Your task to perform on an android device: turn on priority inbox in the gmail app Image 0: 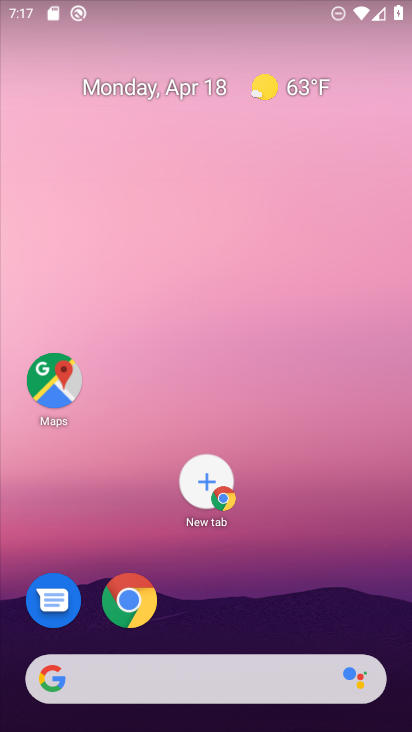
Step 0: drag from (282, 622) to (300, 55)
Your task to perform on an android device: turn on priority inbox in the gmail app Image 1: 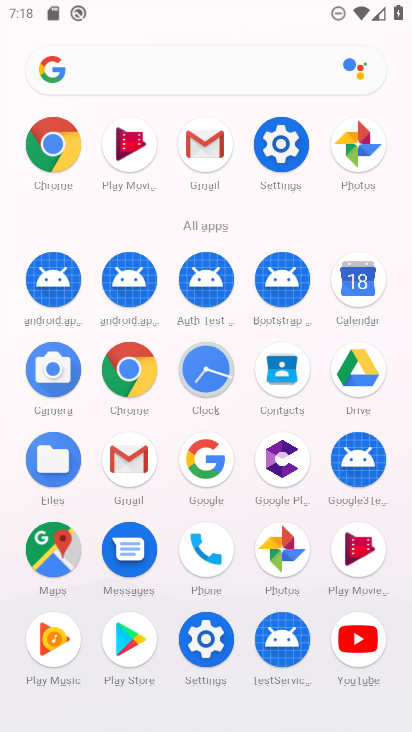
Step 1: click (124, 464)
Your task to perform on an android device: turn on priority inbox in the gmail app Image 2: 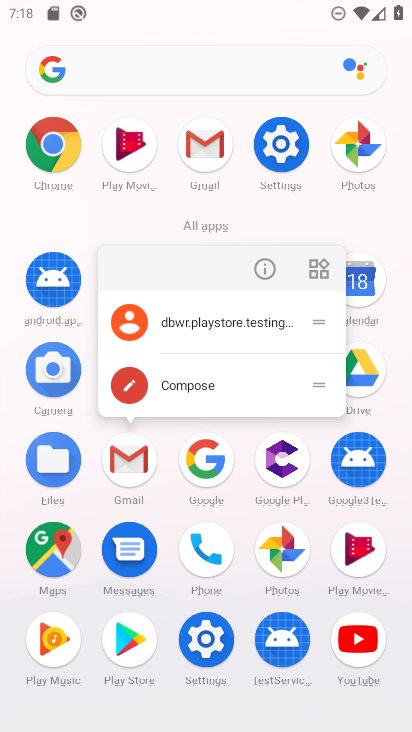
Step 2: click (124, 464)
Your task to perform on an android device: turn on priority inbox in the gmail app Image 3: 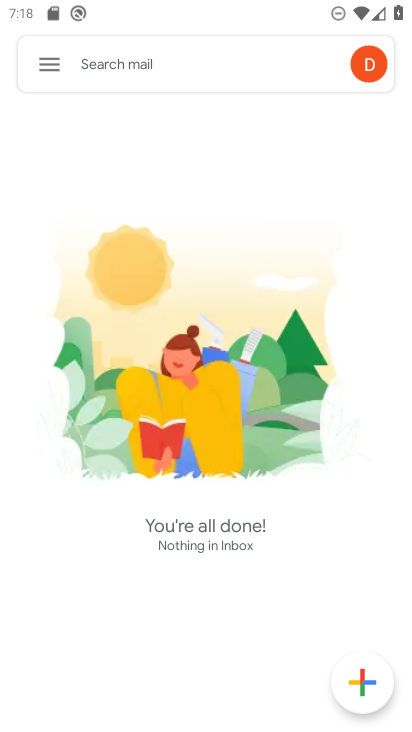
Step 3: click (51, 58)
Your task to perform on an android device: turn on priority inbox in the gmail app Image 4: 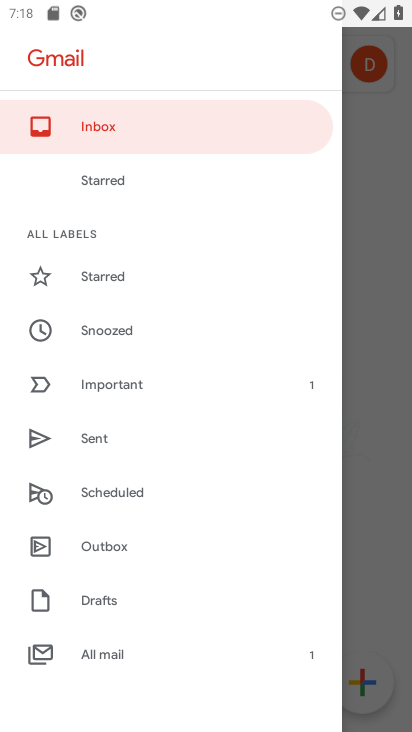
Step 4: drag from (185, 363) to (185, 243)
Your task to perform on an android device: turn on priority inbox in the gmail app Image 5: 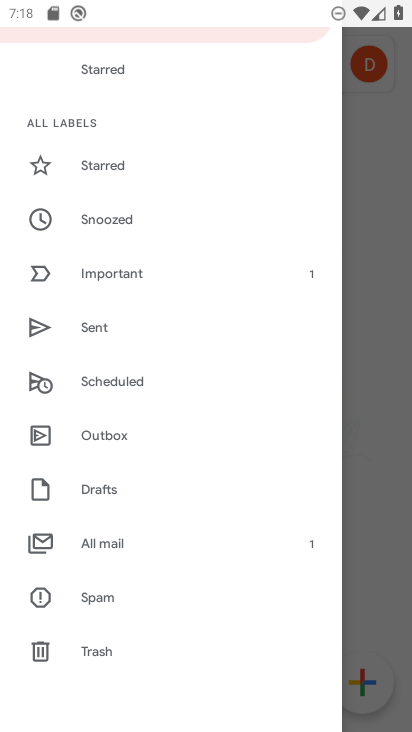
Step 5: drag from (167, 619) to (185, 111)
Your task to perform on an android device: turn on priority inbox in the gmail app Image 6: 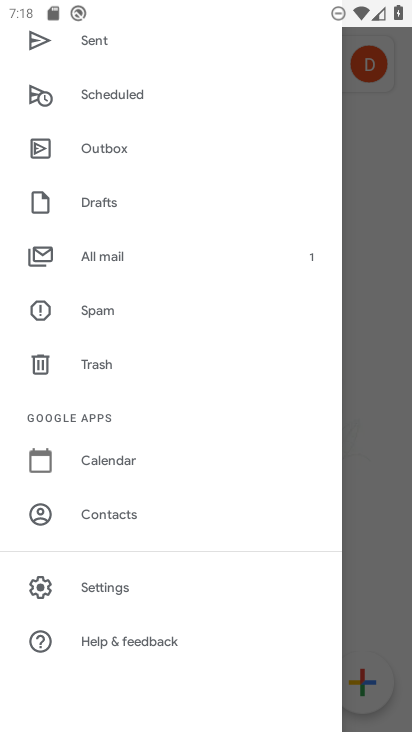
Step 6: click (95, 587)
Your task to perform on an android device: turn on priority inbox in the gmail app Image 7: 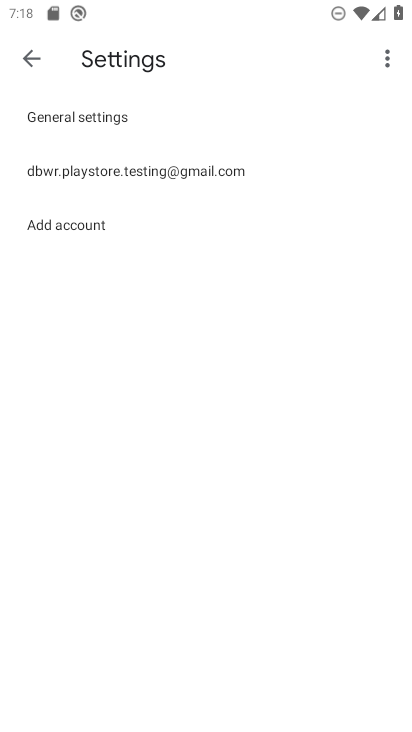
Step 7: click (81, 115)
Your task to perform on an android device: turn on priority inbox in the gmail app Image 8: 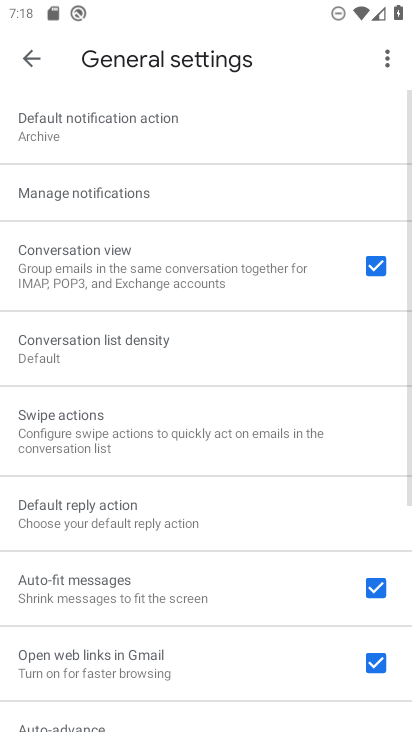
Step 8: drag from (135, 156) to (132, 485)
Your task to perform on an android device: turn on priority inbox in the gmail app Image 9: 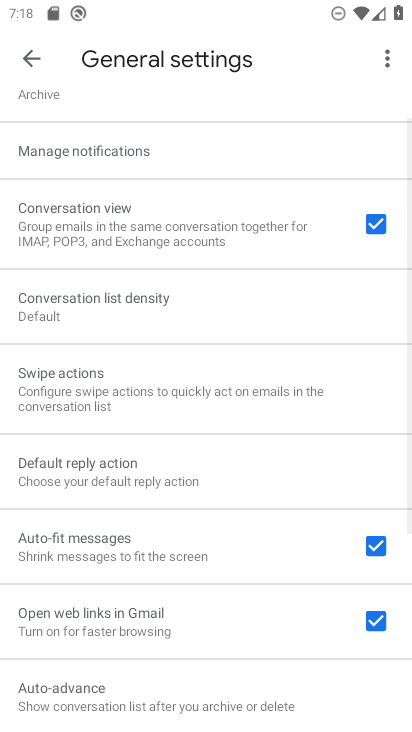
Step 9: click (28, 60)
Your task to perform on an android device: turn on priority inbox in the gmail app Image 10: 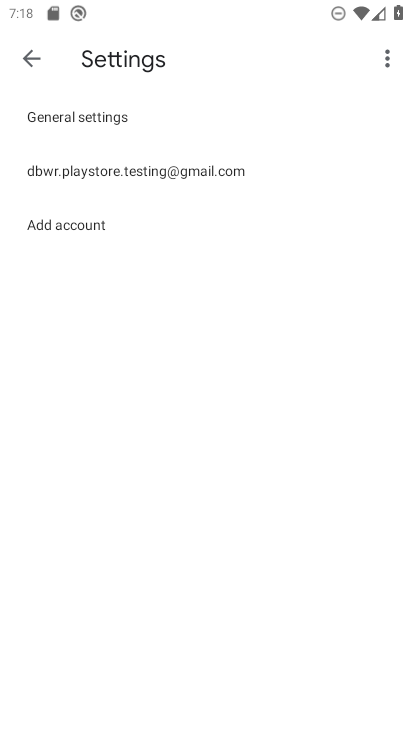
Step 10: click (127, 168)
Your task to perform on an android device: turn on priority inbox in the gmail app Image 11: 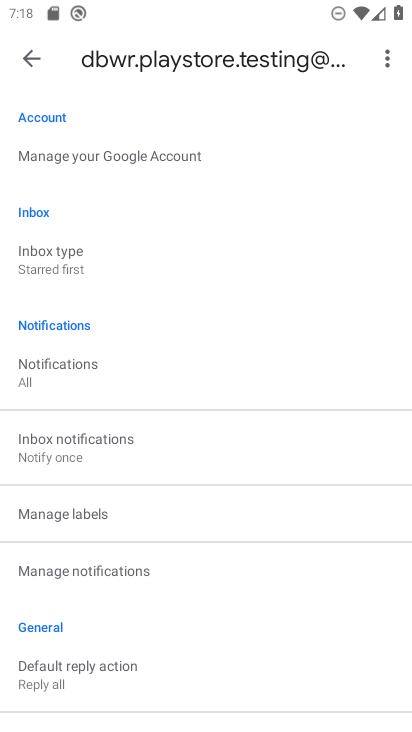
Step 11: click (44, 249)
Your task to perform on an android device: turn on priority inbox in the gmail app Image 12: 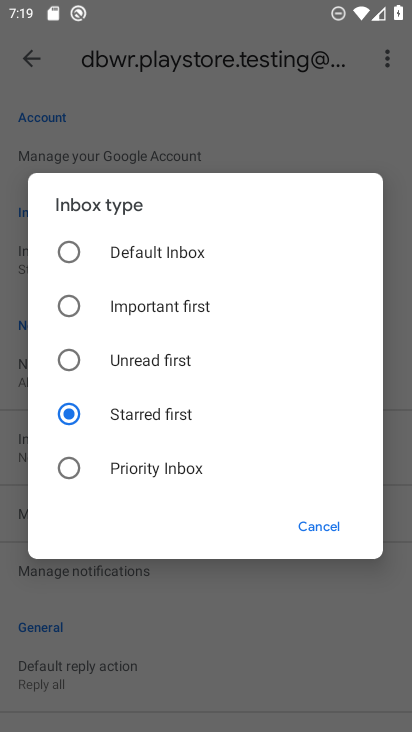
Step 12: click (70, 464)
Your task to perform on an android device: turn on priority inbox in the gmail app Image 13: 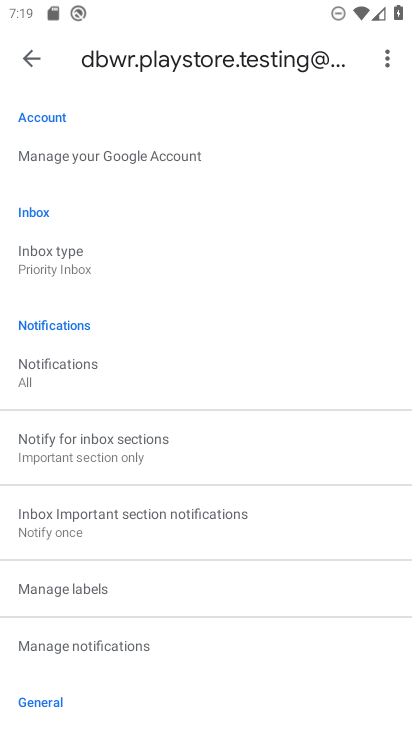
Step 13: task complete